Your task to perform on an android device: turn off data saver in the chrome app Image 0: 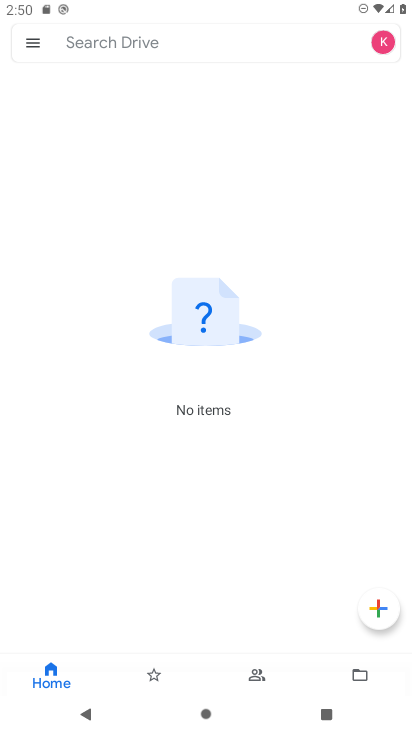
Step 0: press home button
Your task to perform on an android device: turn off data saver in the chrome app Image 1: 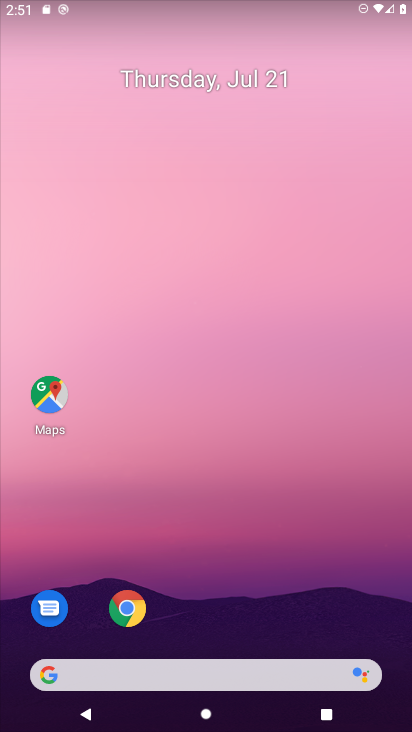
Step 1: click (134, 620)
Your task to perform on an android device: turn off data saver in the chrome app Image 2: 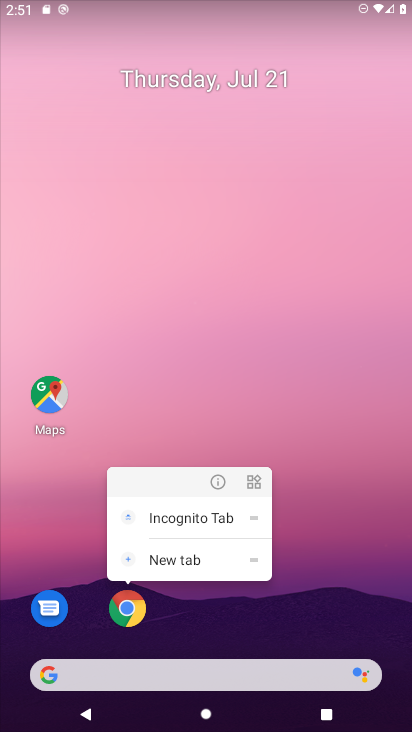
Step 2: click (129, 621)
Your task to perform on an android device: turn off data saver in the chrome app Image 3: 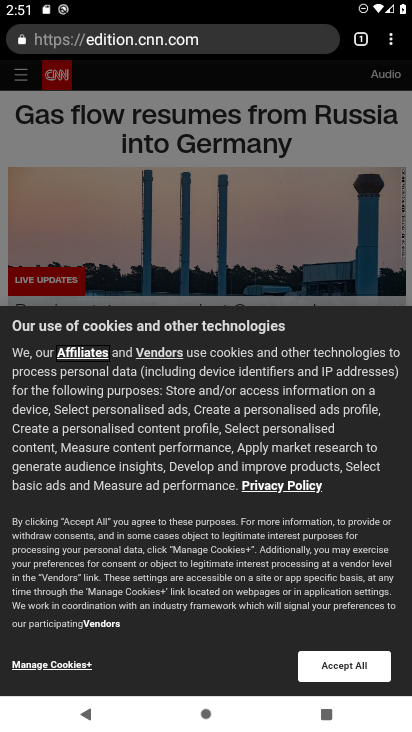
Step 3: click (396, 41)
Your task to perform on an android device: turn off data saver in the chrome app Image 4: 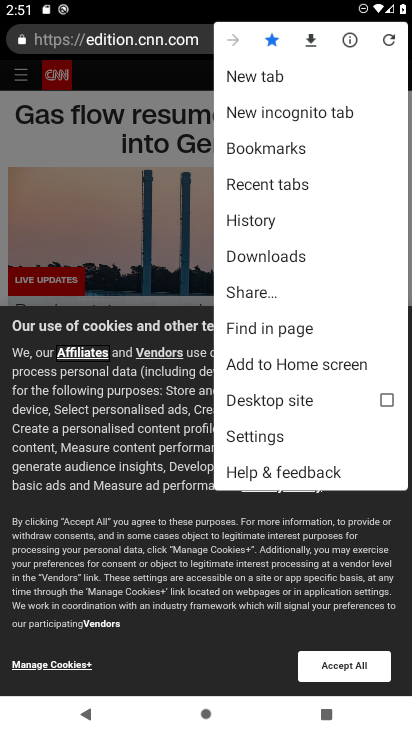
Step 4: click (278, 430)
Your task to perform on an android device: turn off data saver in the chrome app Image 5: 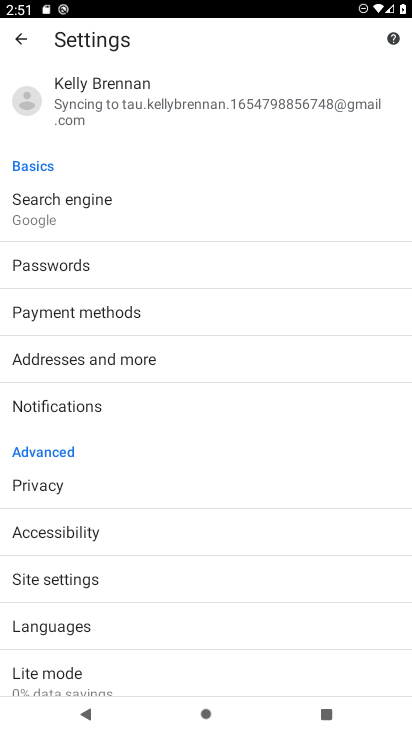
Step 5: drag from (113, 633) to (133, 319)
Your task to perform on an android device: turn off data saver in the chrome app Image 6: 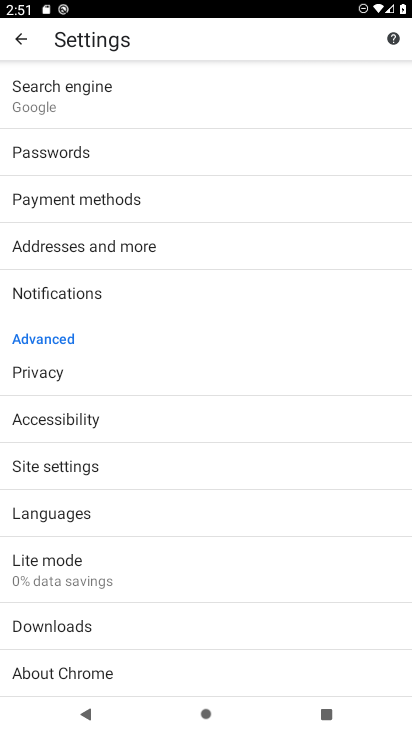
Step 6: drag from (158, 626) to (185, 383)
Your task to perform on an android device: turn off data saver in the chrome app Image 7: 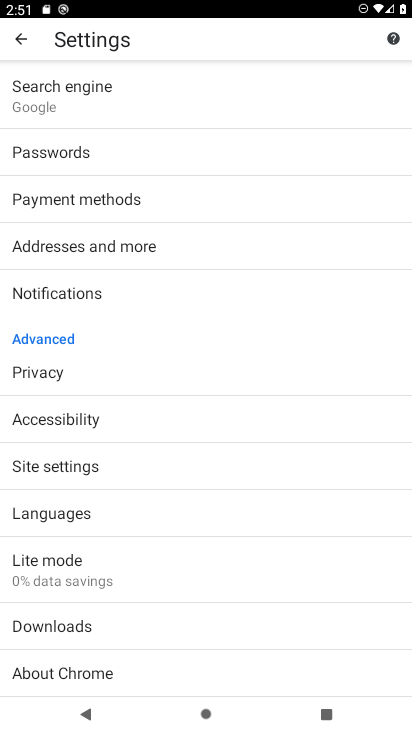
Step 7: click (126, 464)
Your task to perform on an android device: turn off data saver in the chrome app Image 8: 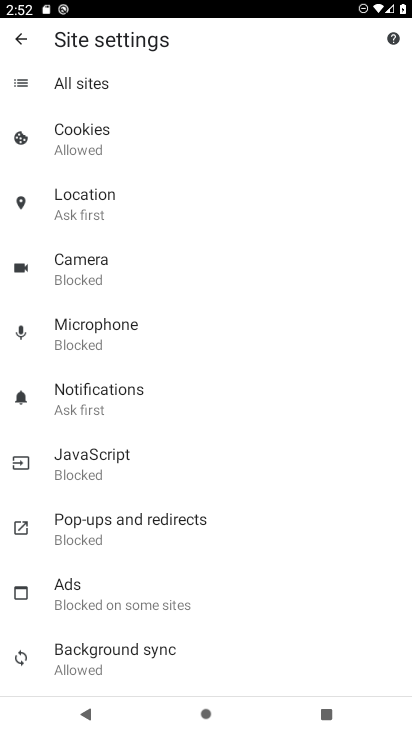
Step 8: click (18, 35)
Your task to perform on an android device: turn off data saver in the chrome app Image 9: 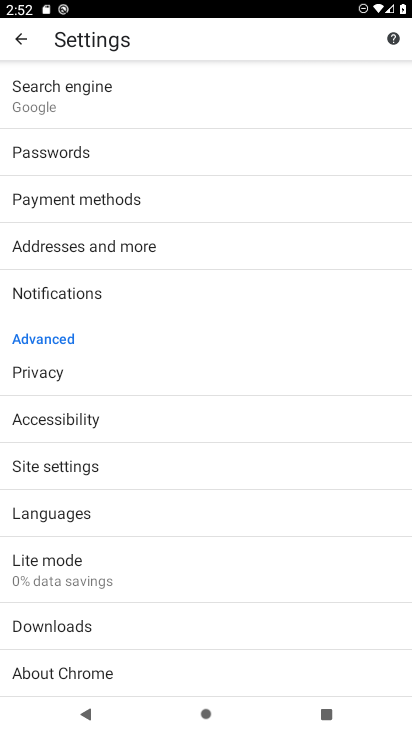
Step 9: click (88, 551)
Your task to perform on an android device: turn off data saver in the chrome app Image 10: 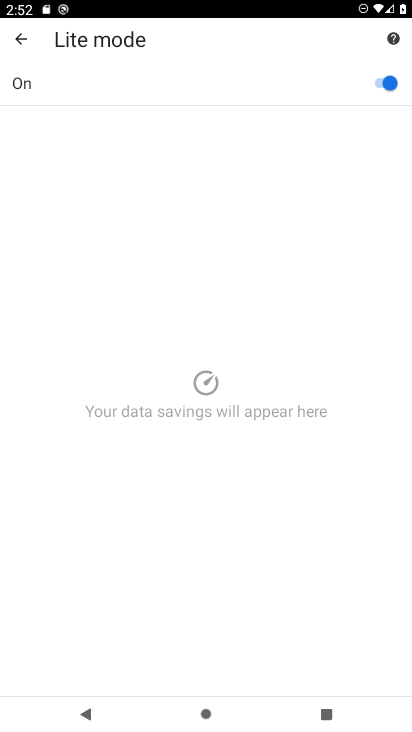
Step 10: click (364, 82)
Your task to perform on an android device: turn off data saver in the chrome app Image 11: 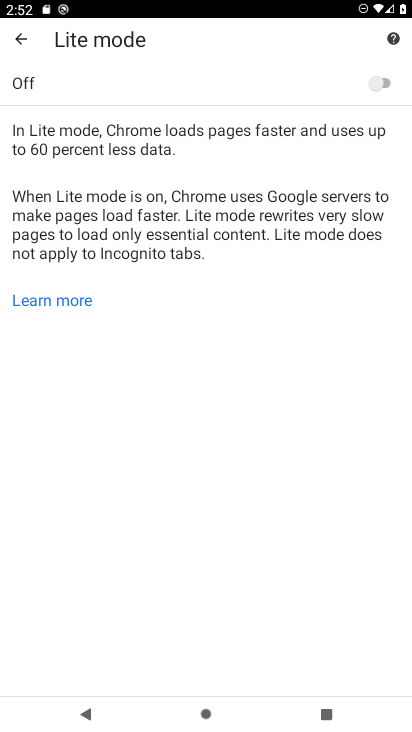
Step 11: task complete